Your task to perform on an android device: Open Android settings Image 0: 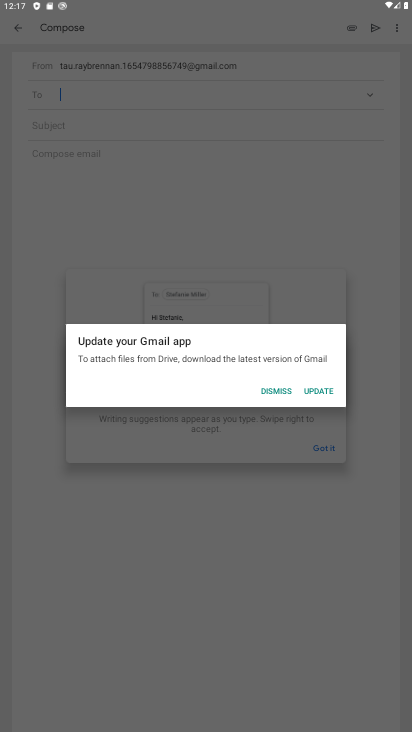
Step 0: press home button
Your task to perform on an android device: Open Android settings Image 1: 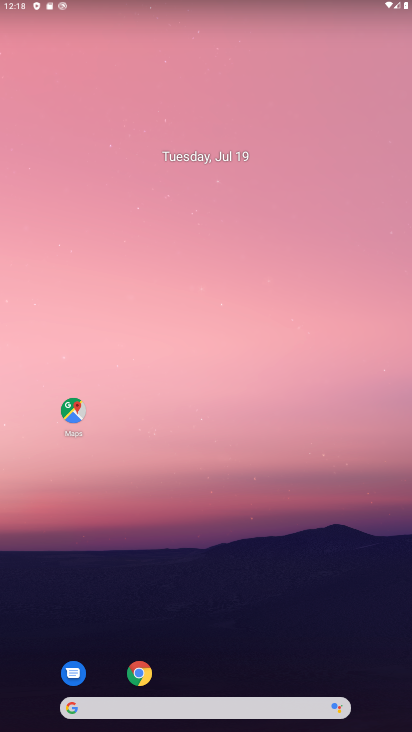
Step 1: drag from (262, 653) to (256, 209)
Your task to perform on an android device: Open Android settings Image 2: 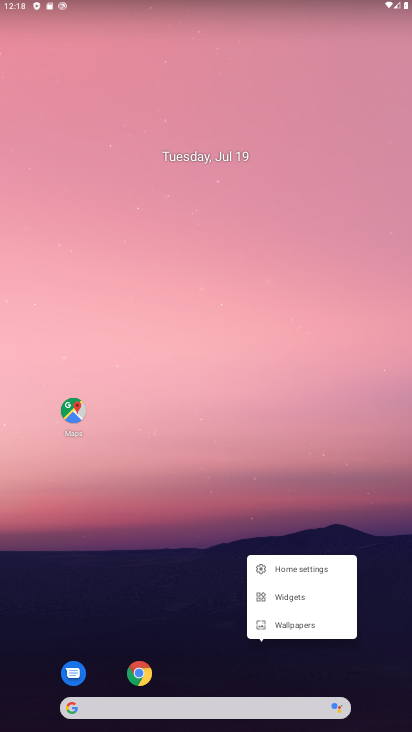
Step 2: click (373, 670)
Your task to perform on an android device: Open Android settings Image 3: 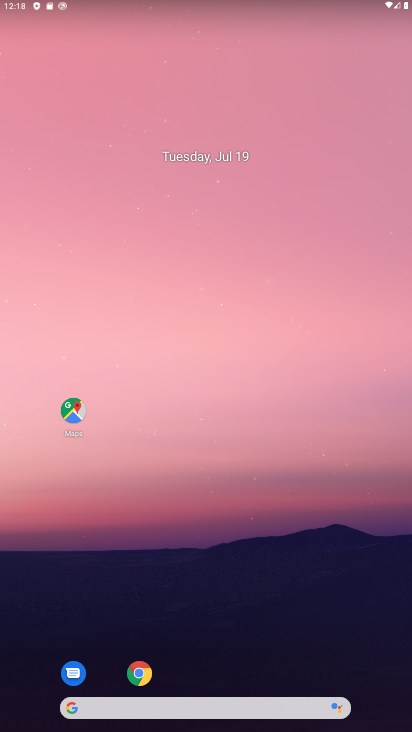
Step 3: drag from (373, 670) to (309, 227)
Your task to perform on an android device: Open Android settings Image 4: 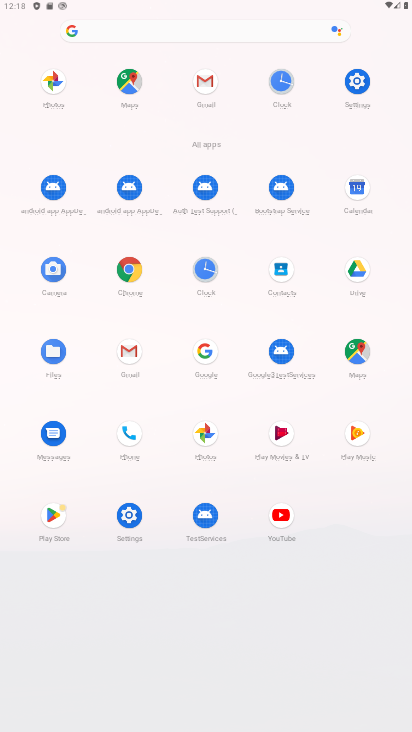
Step 4: click (358, 87)
Your task to perform on an android device: Open Android settings Image 5: 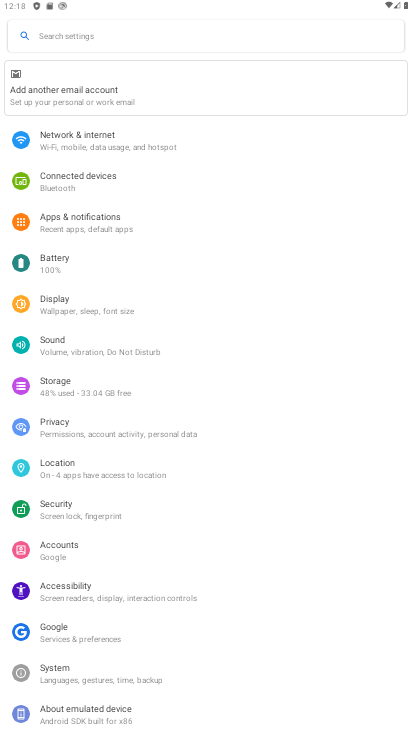
Step 5: task complete